Your task to perform on an android device: change the clock display to analog Image 0: 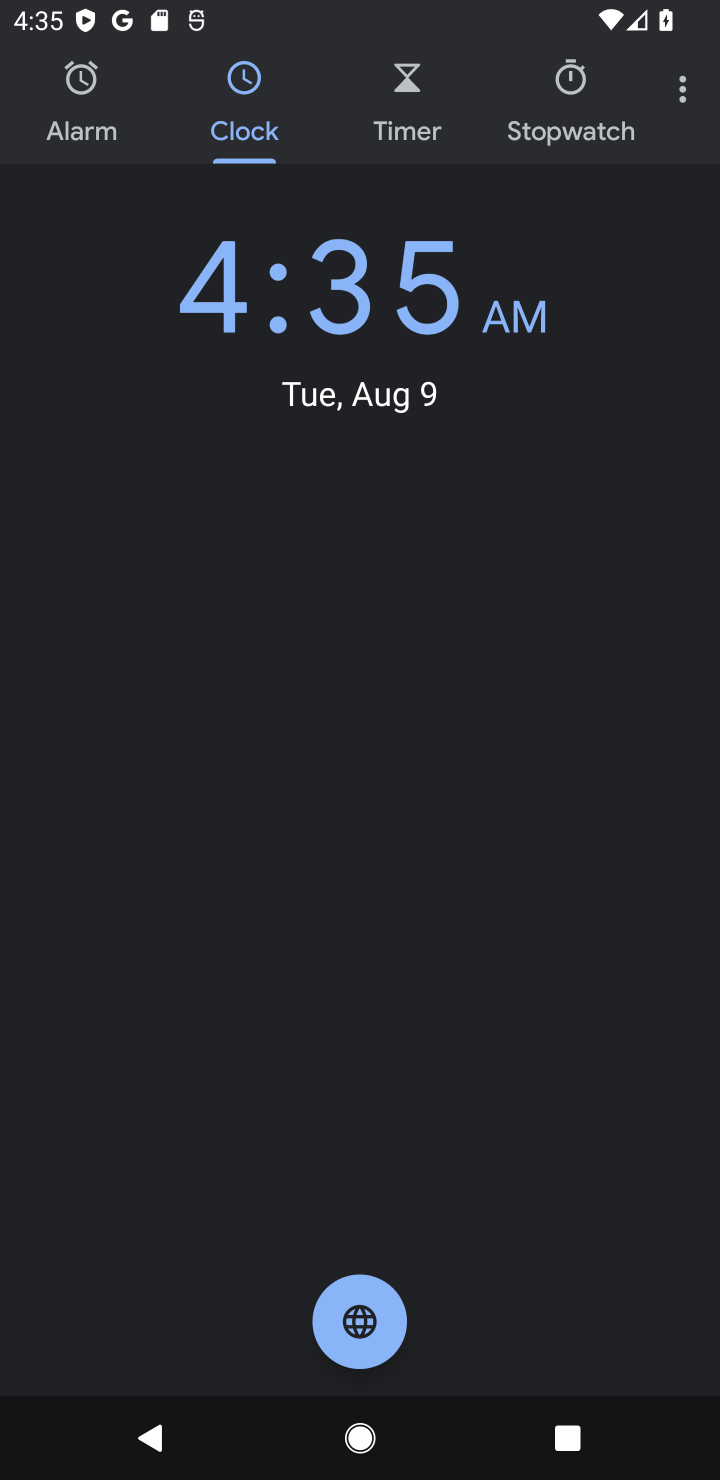
Step 0: press home button
Your task to perform on an android device: change the clock display to analog Image 1: 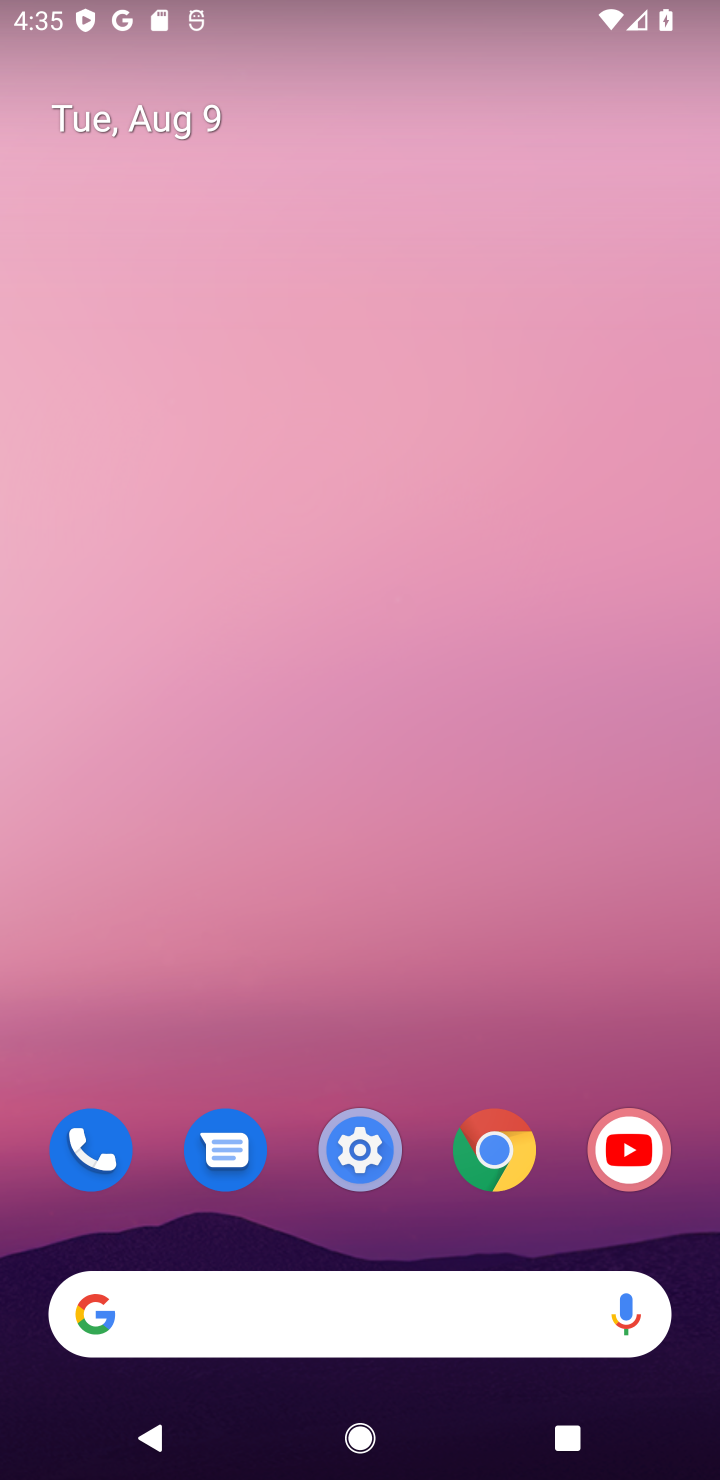
Step 1: drag from (348, 1242) to (691, 6)
Your task to perform on an android device: change the clock display to analog Image 2: 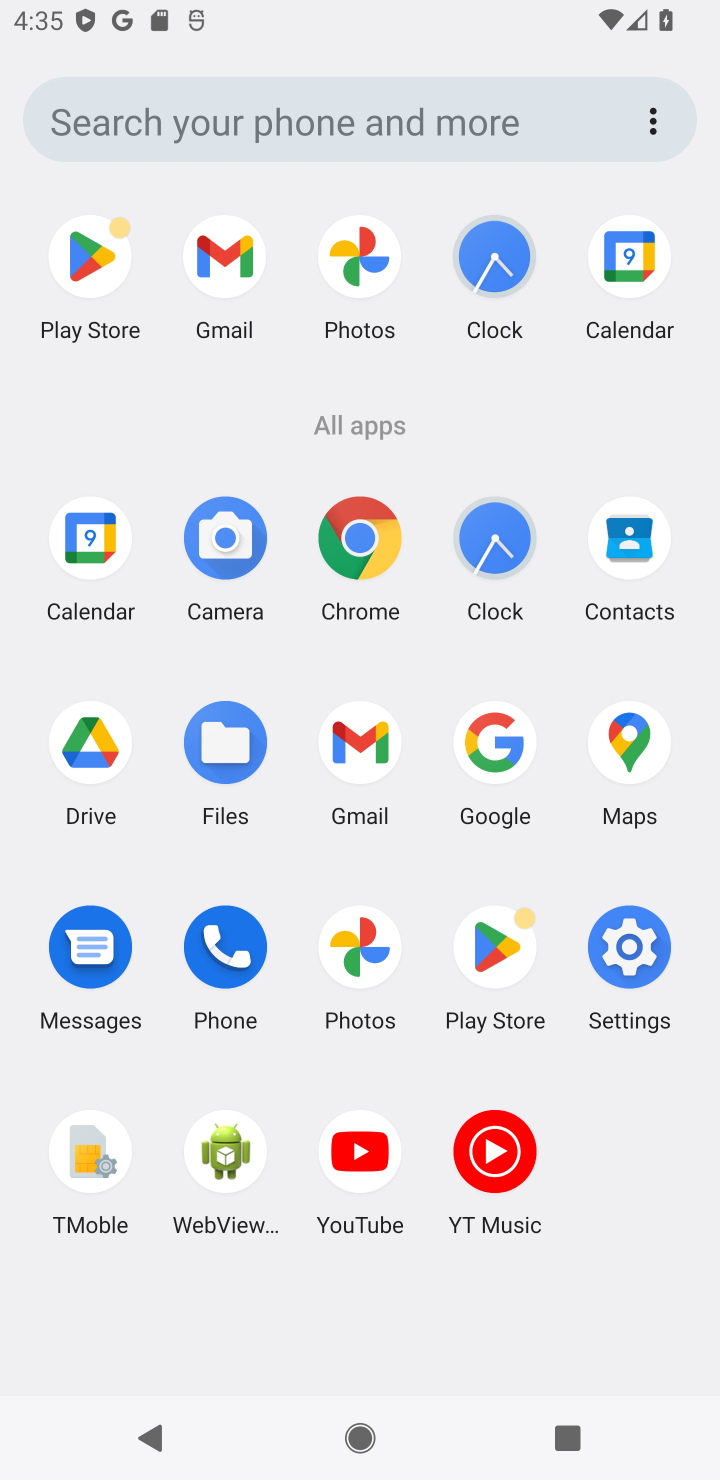
Step 2: click (493, 568)
Your task to perform on an android device: change the clock display to analog Image 3: 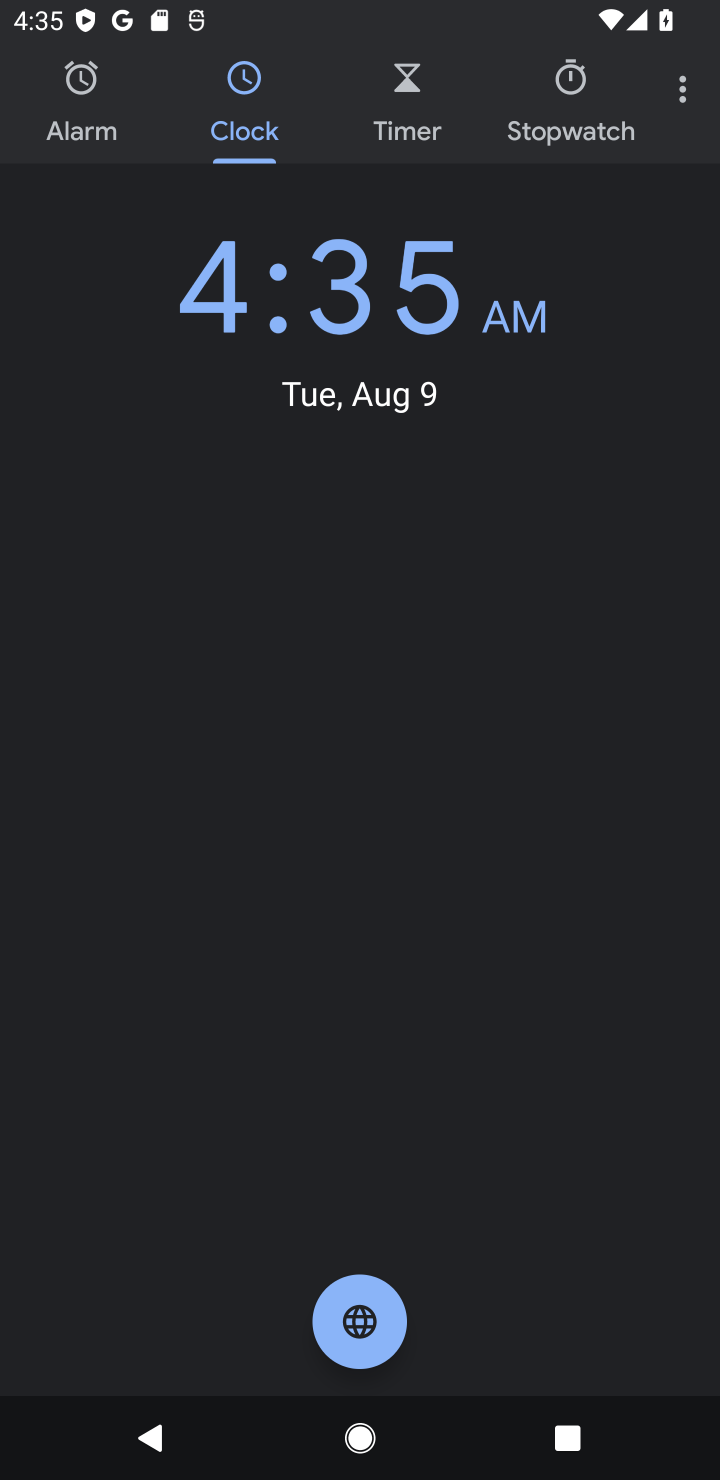
Step 3: click (674, 75)
Your task to perform on an android device: change the clock display to analog Image 4: 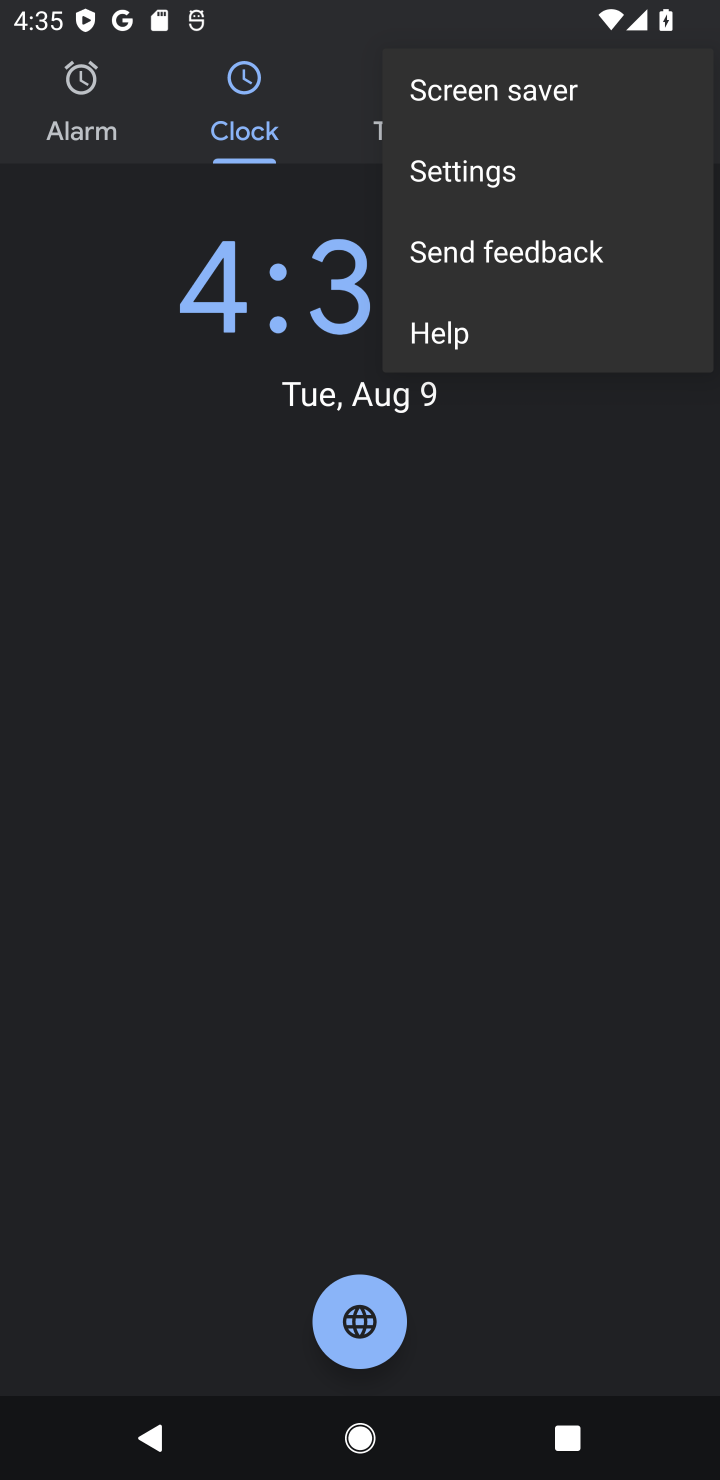
Step 4: click (467, 167)
Your task to perform on an android device: change the clock display to analog Image 5: 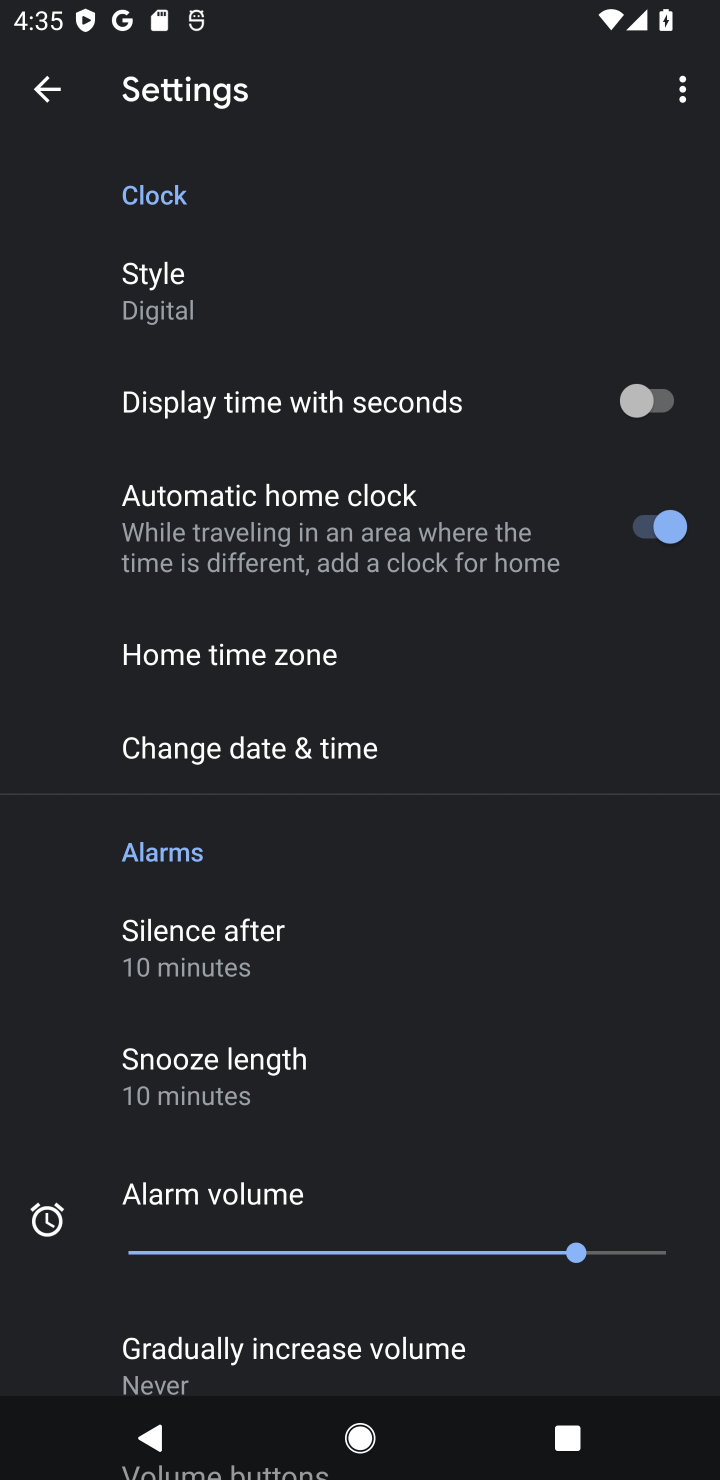
Step 5: click (151, 304)
Your task to perform on an android device: change the clock display to analog Image 6: 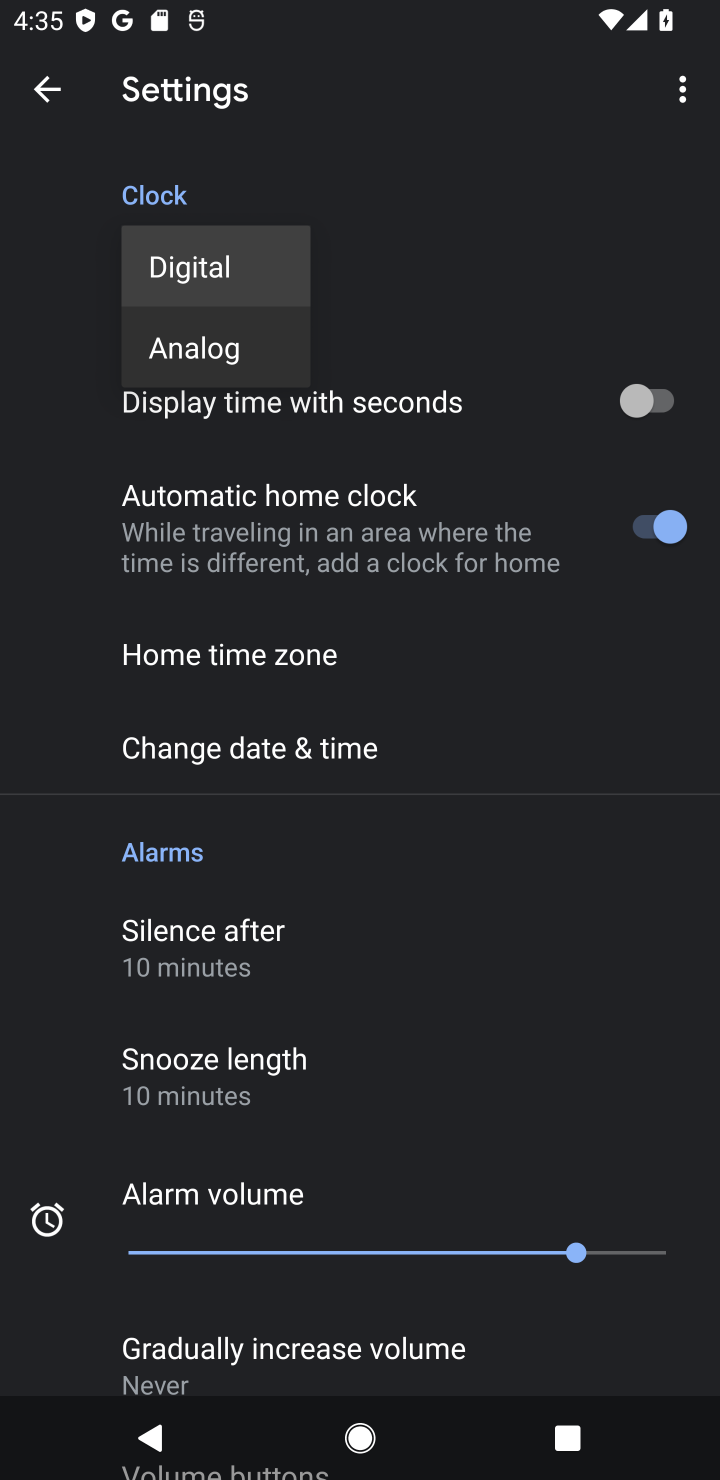
Step 6: click (189, 334)
Your task to perform on an android device: change the clock display to analog Image 7: 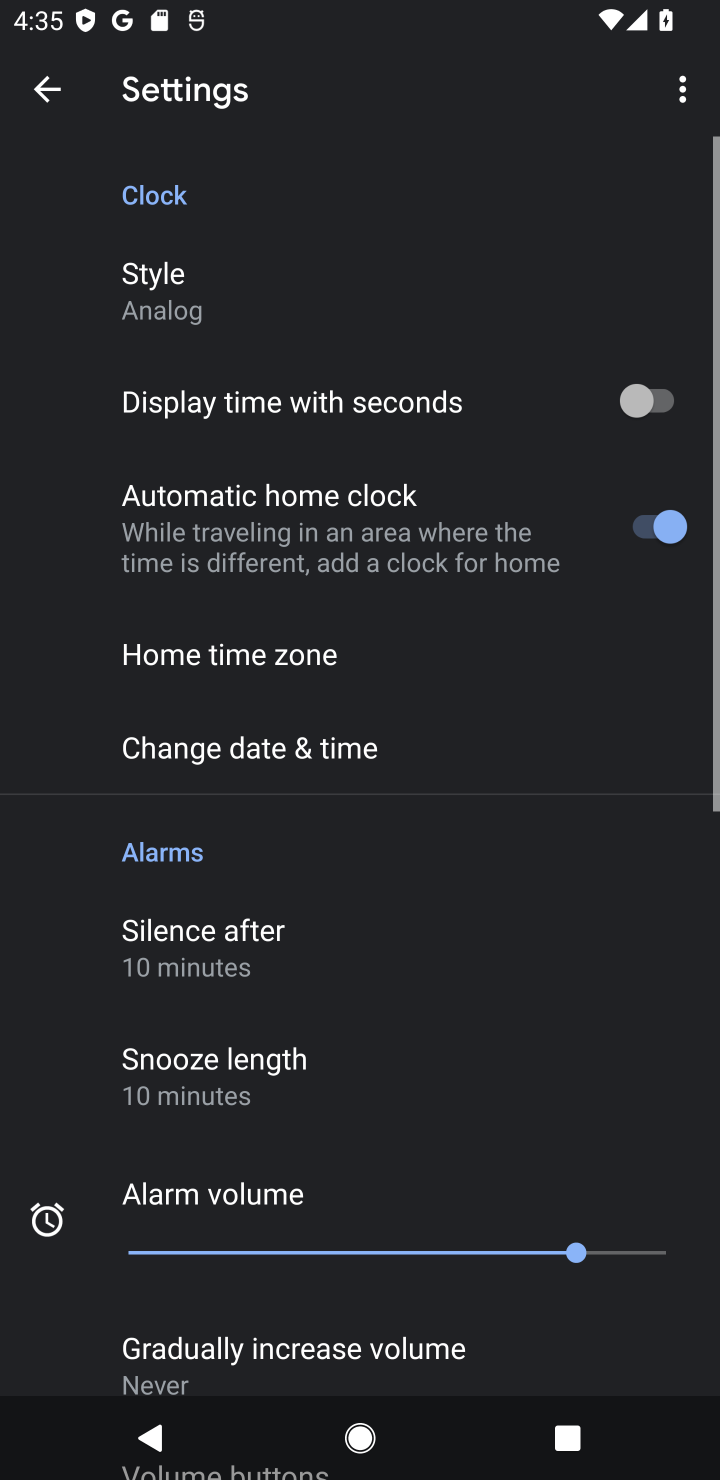
Step 7: task complete